Your task to perform on an android device: Go to Wikipedia Image 0: 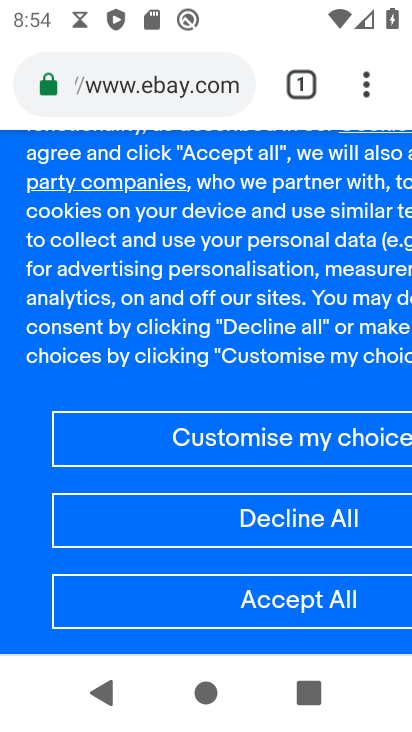
Step 0: press home button
Your task to perform on an android device: Go to Wikipedia Image 1: 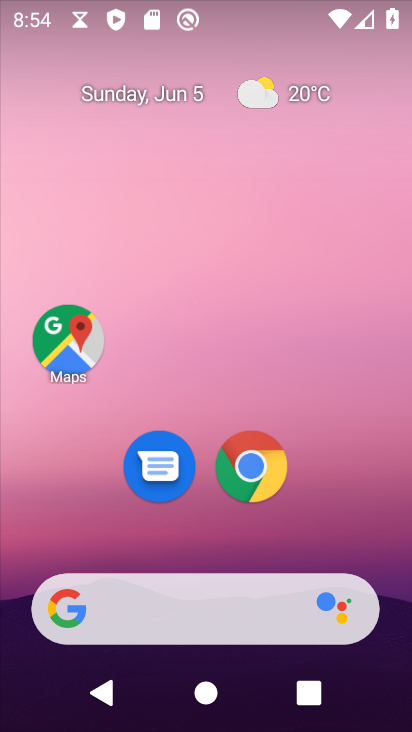
Step 1: drag from (243, 557) to (223, 153)
Your task to perform on an android device: Go to Wikipedia Image 2: 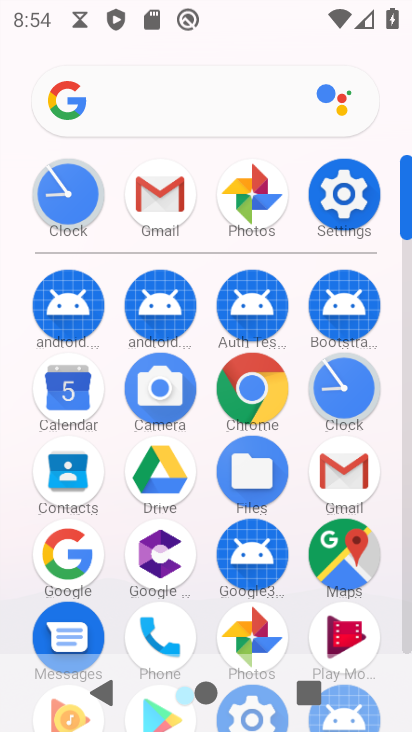
Step 2: click (235, 403)
Your task to perform on an android device: Go to Wikipedia Image 3: 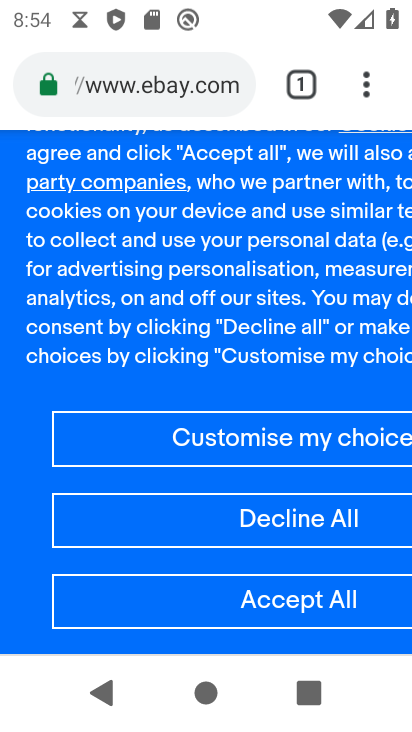
Step 3: click (211, 82)
Your task to perform on an android device: Go to Wikipedia Image 4: 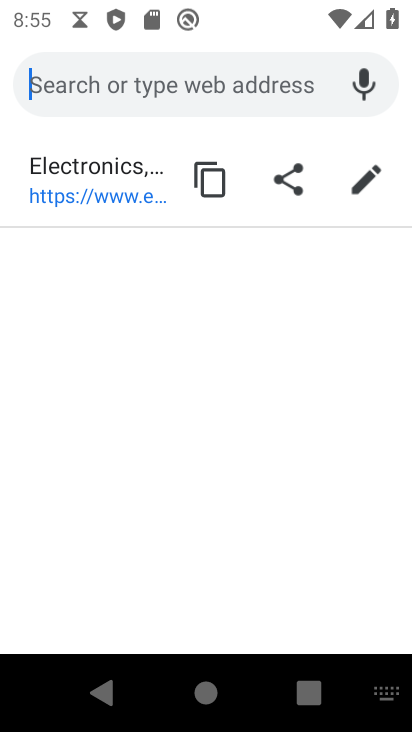
Step 4: type "www.wikipedia.com"
Your task to perform on an android device: Go to Wikipedia Image 5: 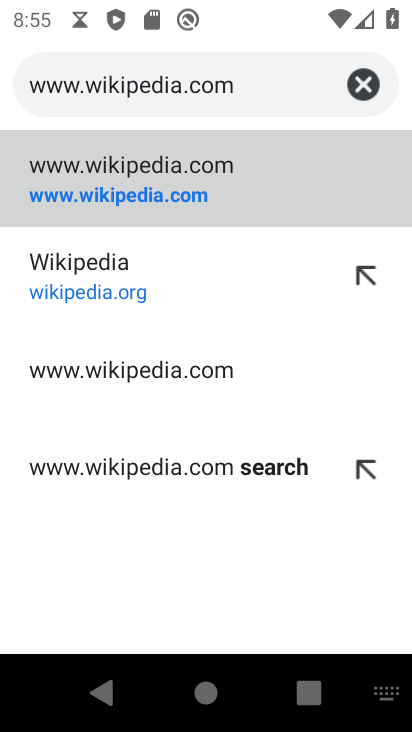
Step 5: click (103, 183)
Your task to perform on an android device: Go to Wikipedia Image 6: 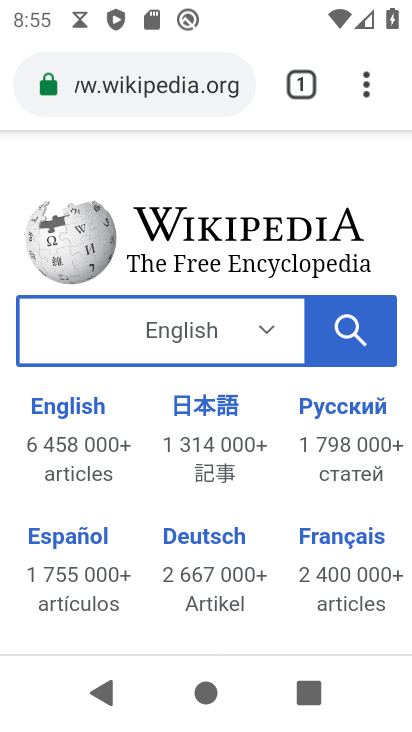
Step 6: task complete